Your task to perform on an android device: allow notifications from all sites in the chrome app Image 0: 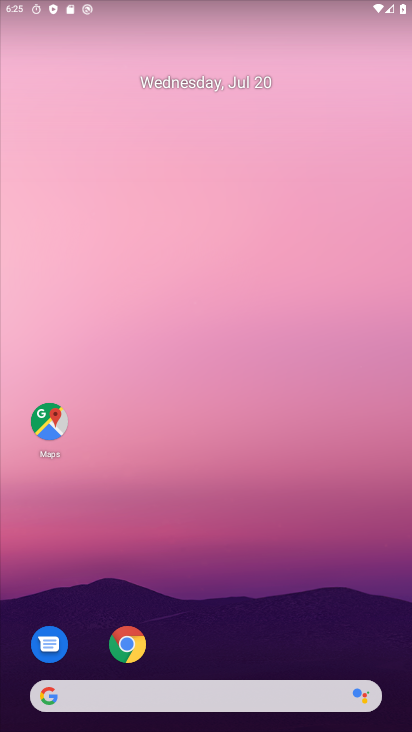
Step 0: press home button
Your task to perform on an android device: allow notifications from all sites in the chrome app Image 1: 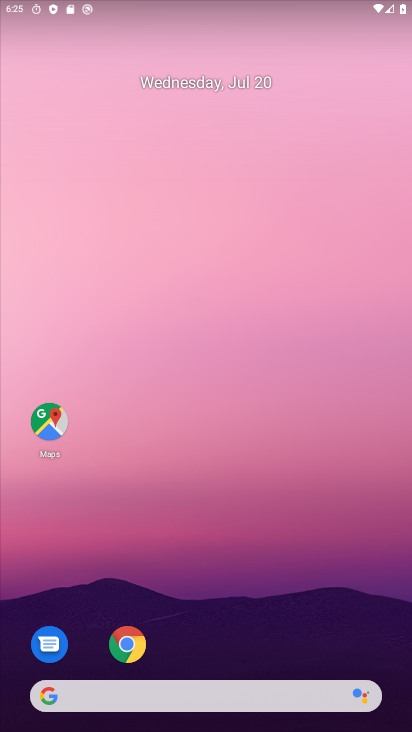
Step 1: drag from (195, 600) to (141, 5)
Your task to perform on an android device: allow notifications from all sites in the chrome app Image 2: 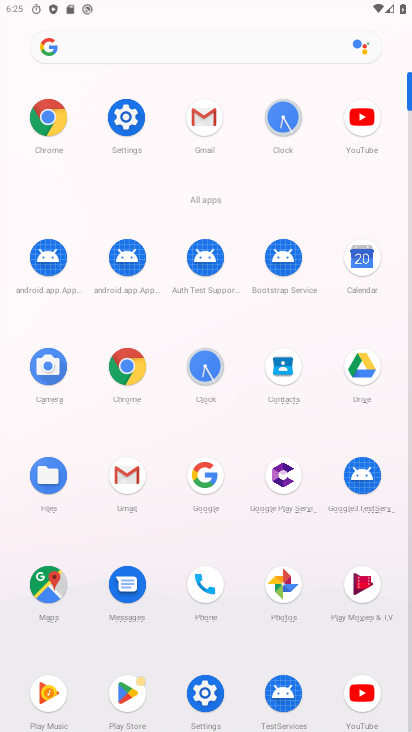
Step 2: click (55, 110)
Your task to perform on an android device: allow notifications from all sites in the chrome app Image 3: 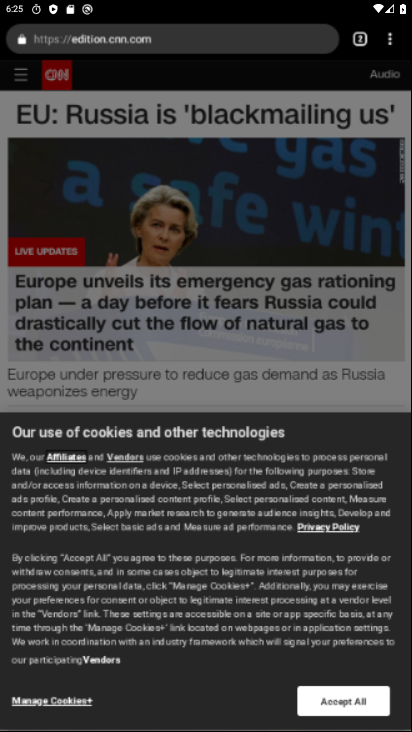
Step 3: drag from (391, 38) to (254, 436)
Your task to perform on an android device: allow notifications from all sites in the chrome app Image 4: 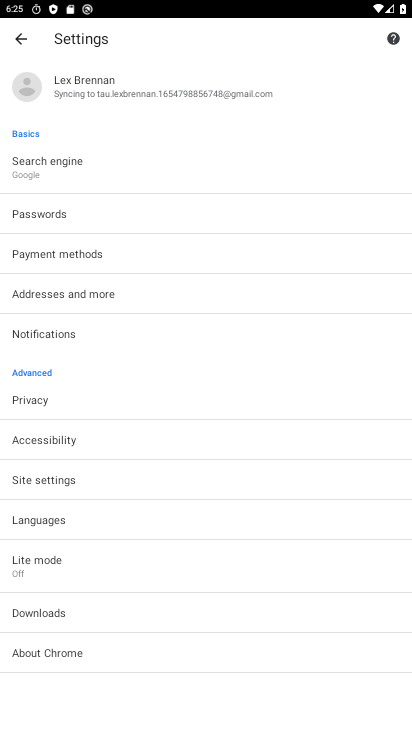
Step 4: click (28, 482)
Your task to perform on an android device: allow notifications from all sites in the chrome app Image 5: 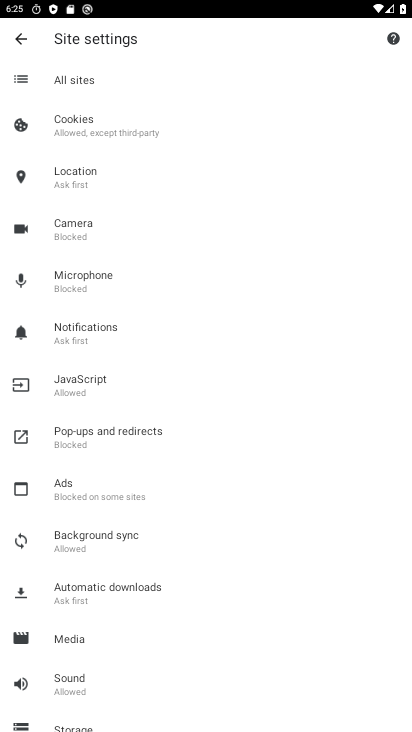
Step 5: click (76, 336)
Your task to perform on an android device: allow notifications from all sites in the chrome app Image 6: 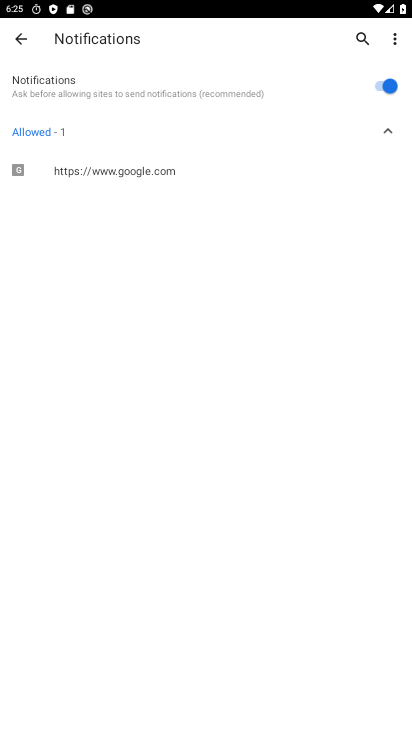
Step 6: task complete